Your task to perform on an android device: change your default location settings in chrome Image 0: 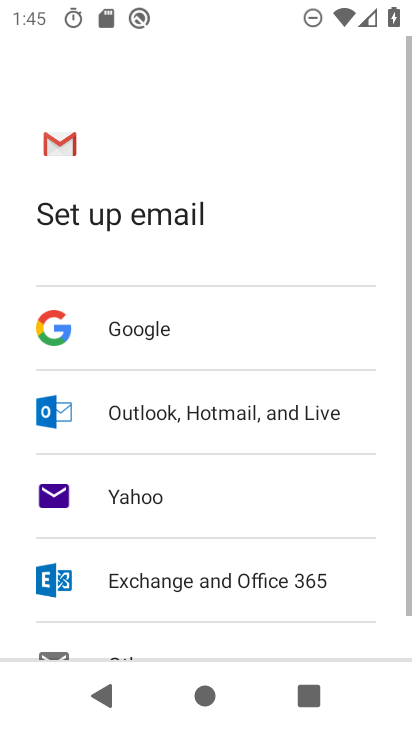
Step 0: press home button
Your task to perform on an android device: change your default location settings in chrome Image 1: 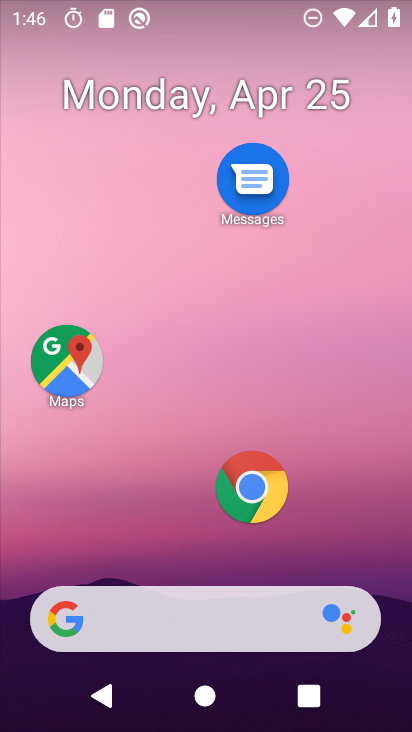
Step 1: drag from (320, 596) to (296, 33)
Your task to perform on an android device: change your default location settings in chrome Image 2: 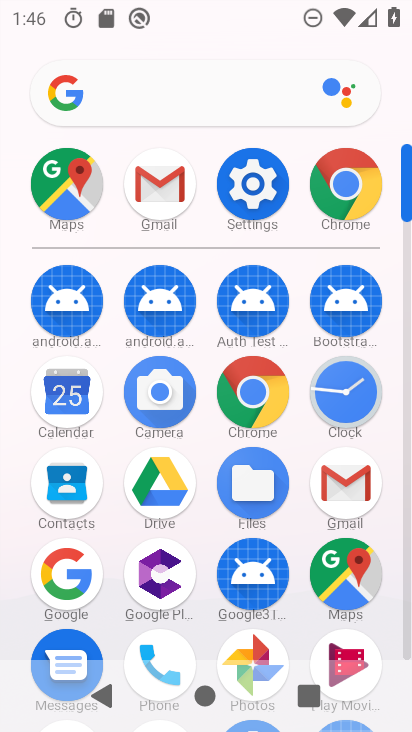
Step 2: click (232, 406)
Your task to perform on an android device: change your default location settings in chrome Image 3: 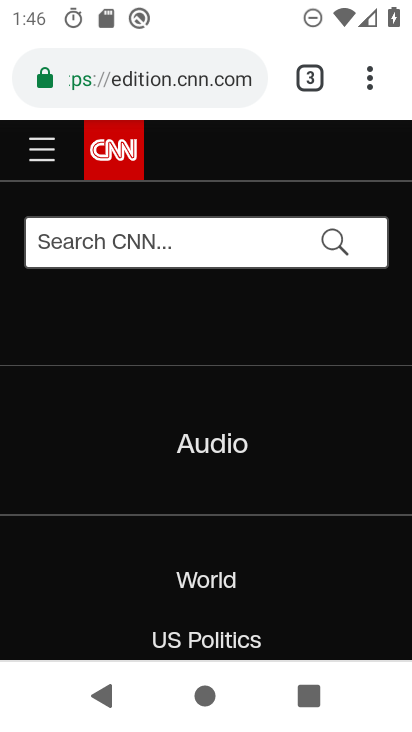
Step 3: drag from (369, 69) to (176, 544)
Your task to perform on an android device: change your default location settings in chrome Image 4: 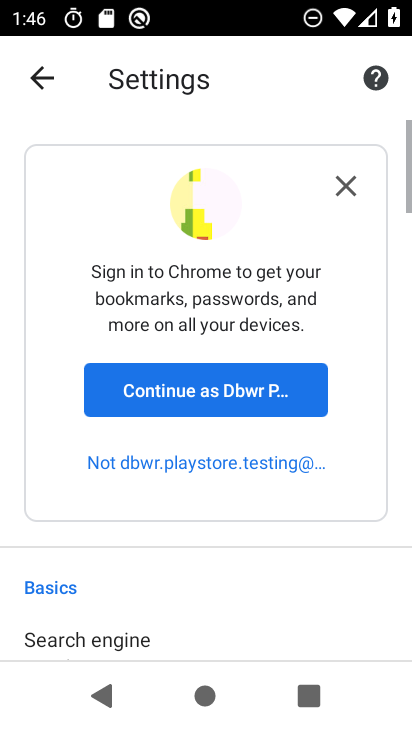
Step 4: drag from (196, 597) to (240, 2)
Your task to perform on an android device: change your default location settings in chrome Image 5: 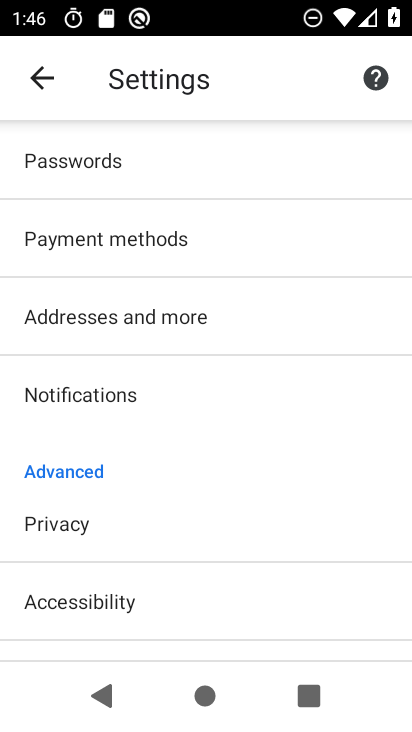
Step 5: drag from (188, 630) to (219, 246)
Your task to perform on an android device: change your default location settings in chrome Image 6: 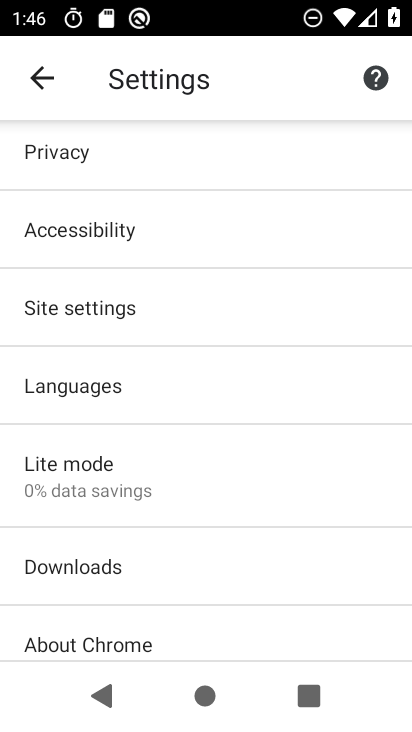
Step 6: click (137, 307)
Your task to perform on an android device: change your default location settings in chrome Image 7: 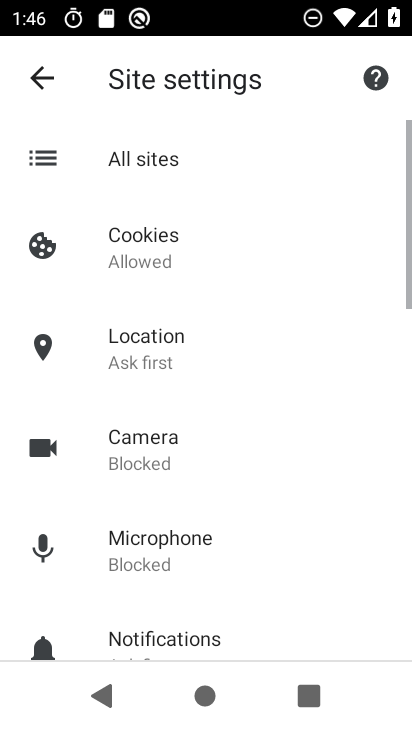
Step 7: drag from (219, 571) to (249, 207)
Your task to perform on an android device: change your default location settings in chrome Image 8: 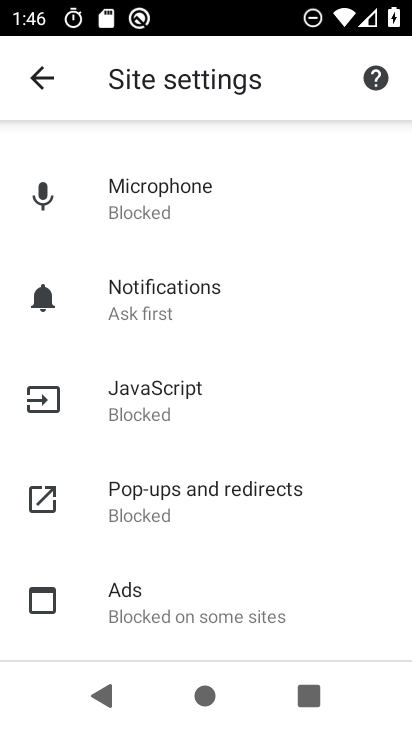
Step 8: drag from (240, 257) to (264, 629)
Your task to perform on an android device: change your default location settings in chrome Image 9: 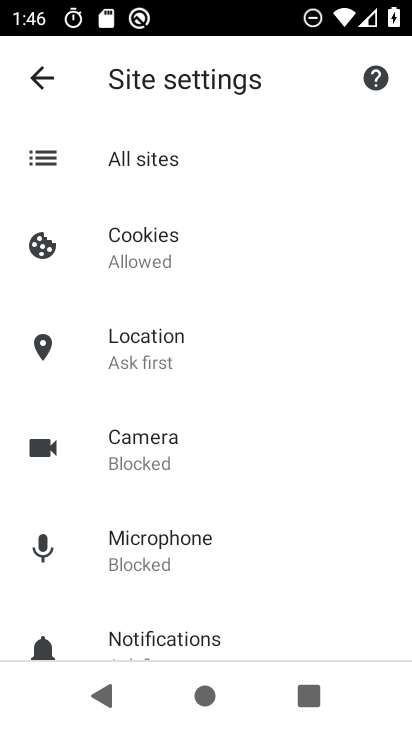
Step 9: click (210, 349)
Your task to perform on an android device: change your default location settings in chrome Image 10: 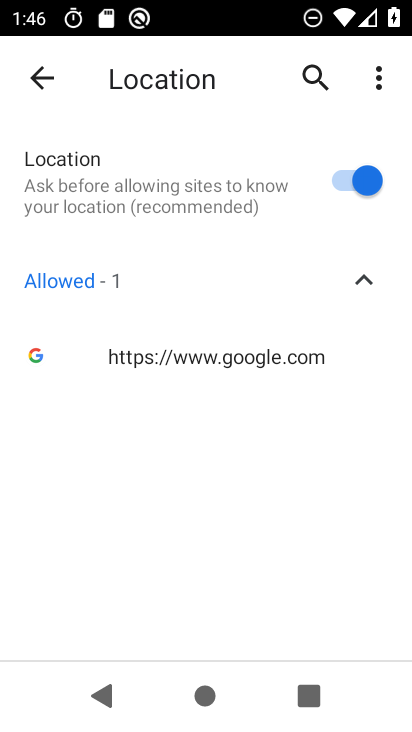
Step 10: click (335, 178)
Your task to perform on an android device: change your default location settings in chrome Image 11: 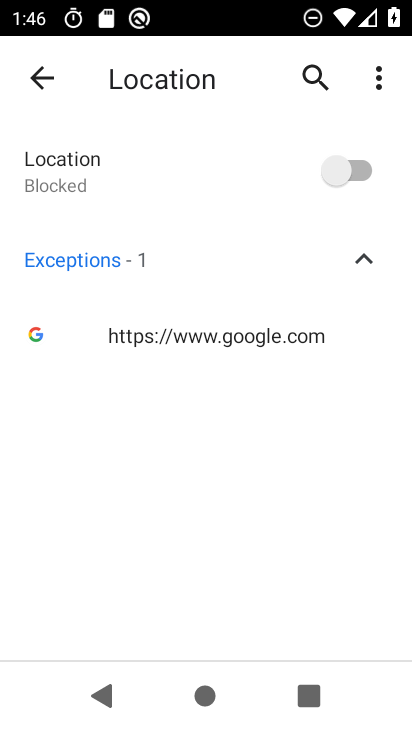
Step 11: task complete